Your task to perform on an android device: check battery use Image 0: 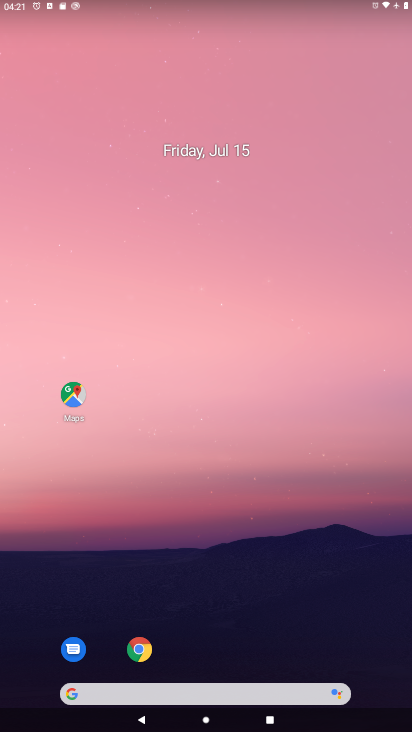
Step 0: drag from (395, 666) to (371, 81)
Your task to perform on an android device: check battery use Image 1: 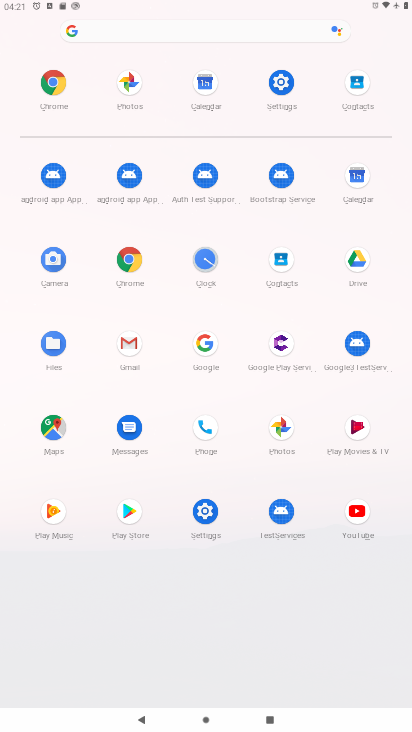
Step 1: click (207, 508)
Your task to perform on an android device: check battery use Image 2: 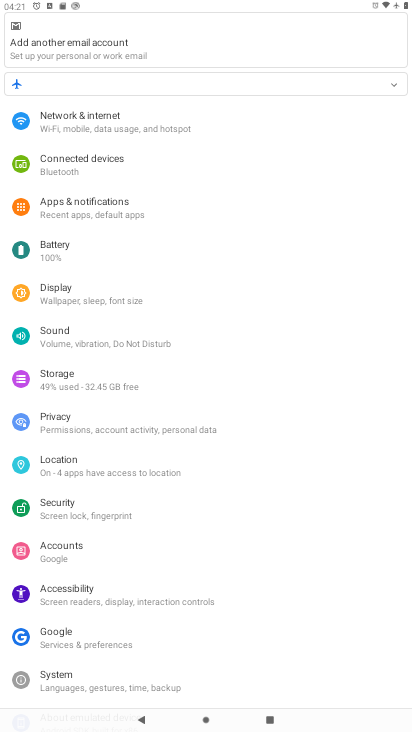
Step 2: click (54, 248)
Your task to perform on an android device: check battery use Image 3: 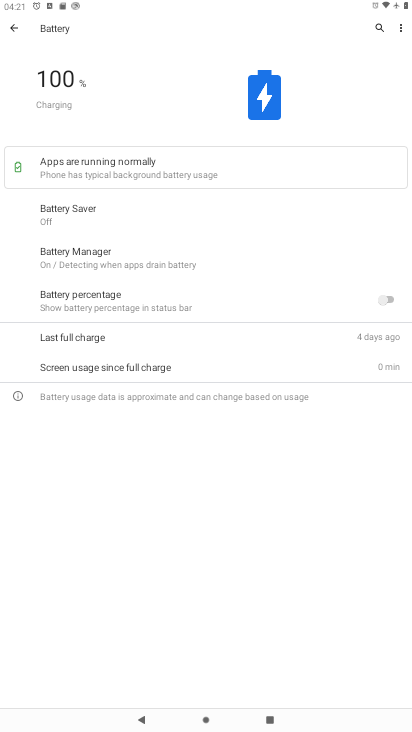
Step 3: click (399, 28)
Your task to perform on an android device: check battery use Image 4: 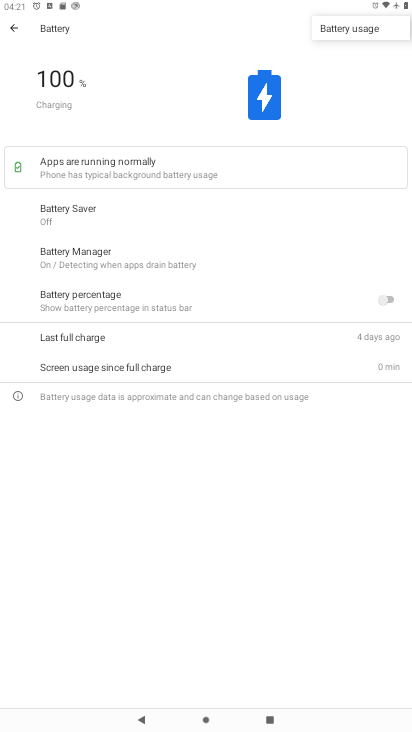
Step 4: click (353, 27)
Your task to perform on an android device: check battery use Image 5: 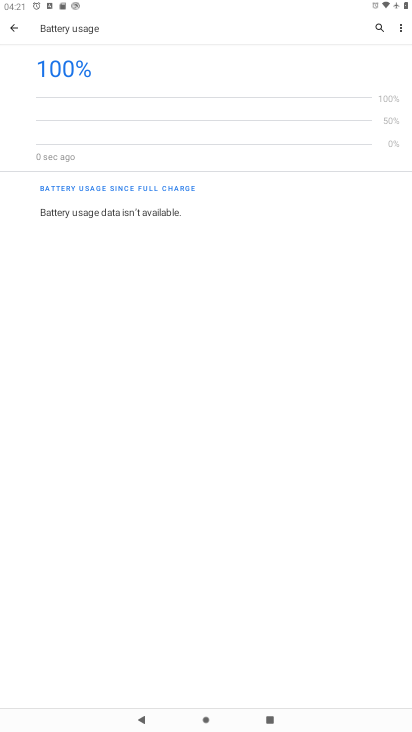
Step 5: task complete